Your task to perform on an android device: show emergency info Image 0: 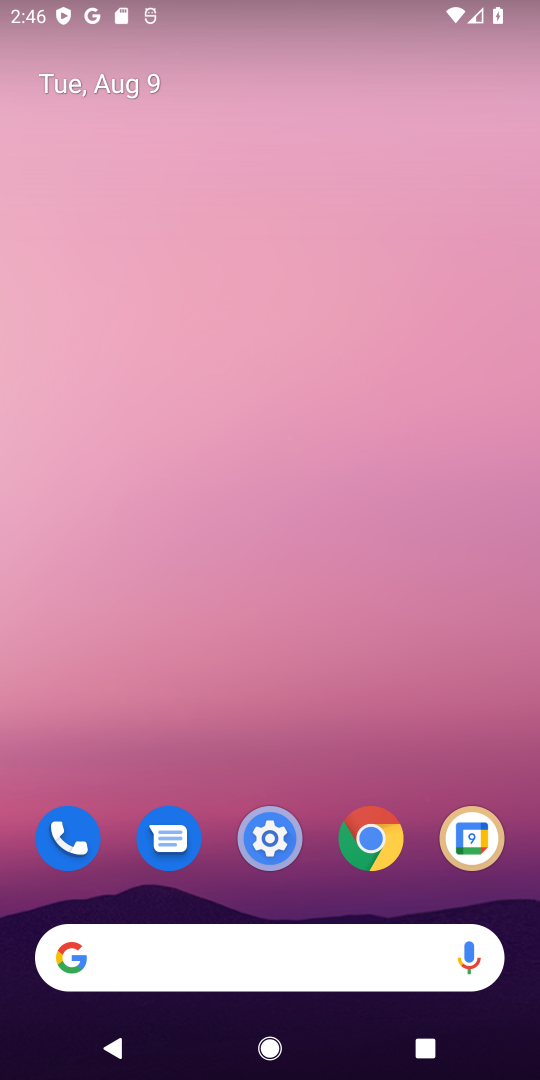
Step 0: drag from (331, 755) to (352, 1)
Your task to perform on an android device: show emergency info Image 1: 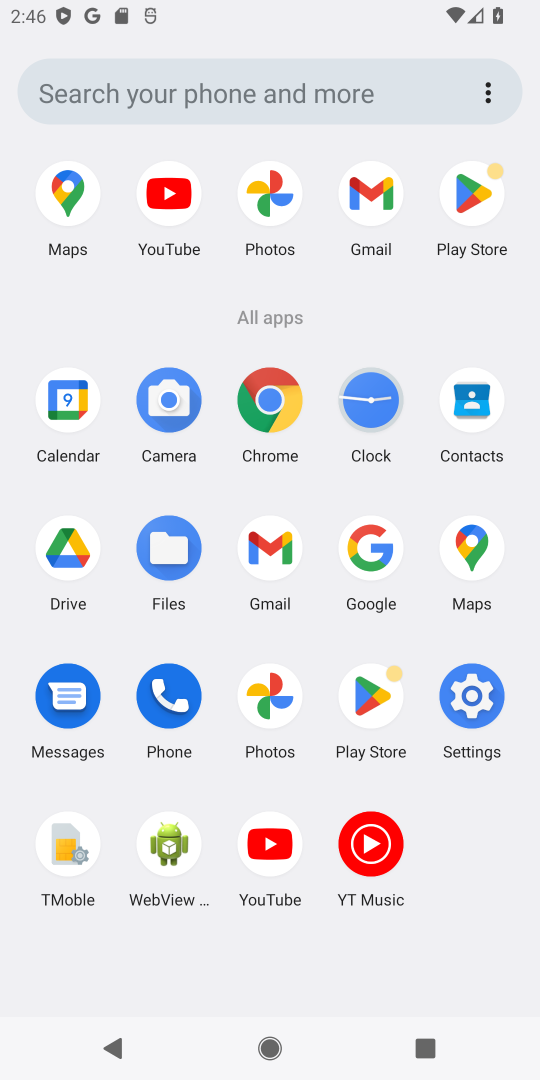
Step 1: click (471, 695)
Your task to perform on an android device: show emergency info Image 2: 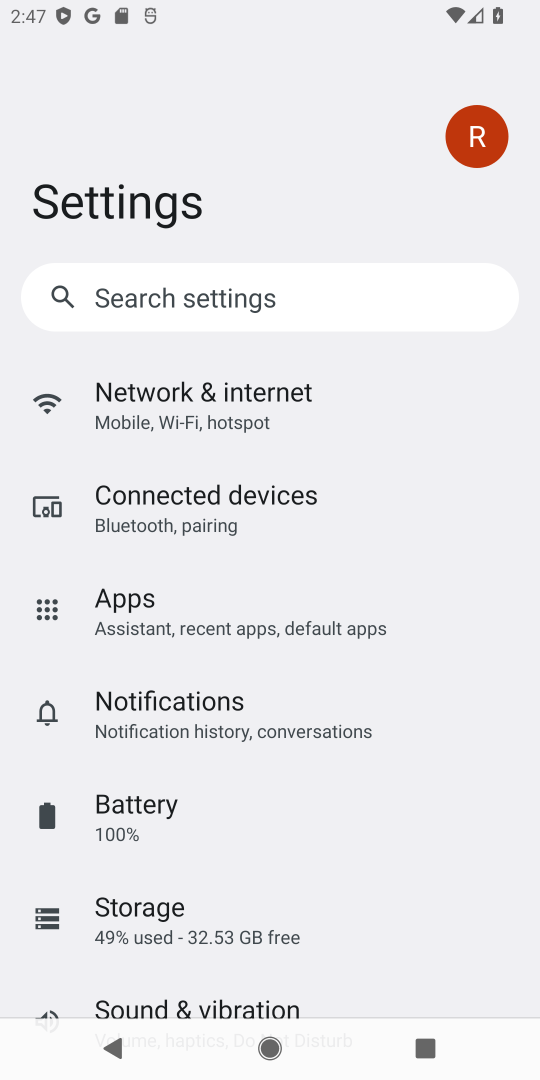
Step 2: drag from (380, 909) to (395, 326)
Your task to perform on an android device: show emergency info Image 3: 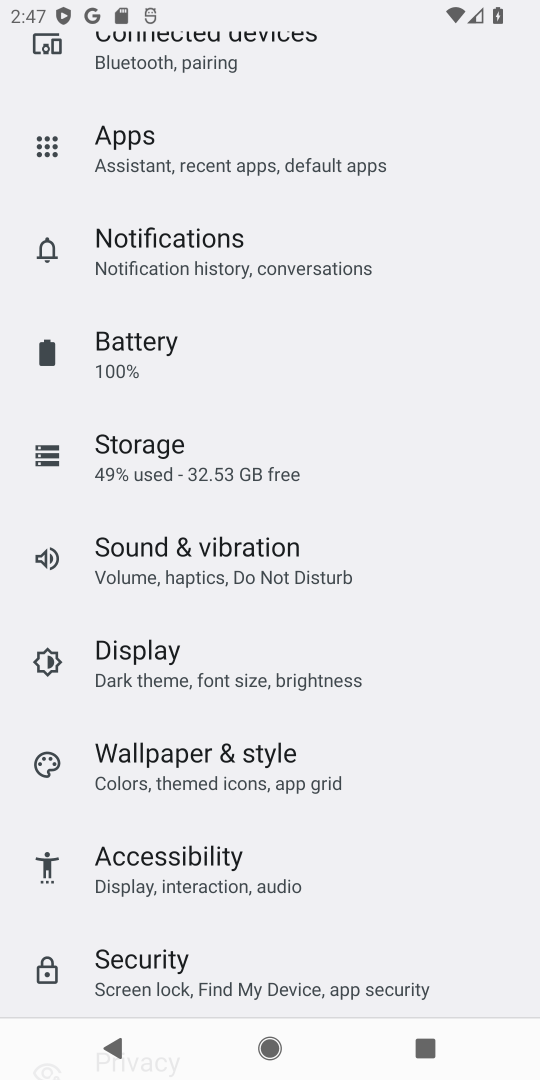
Step 3: drag from (334, 947) to (325, 432)
Your task to perform on an android device: show emergency info Image 4: 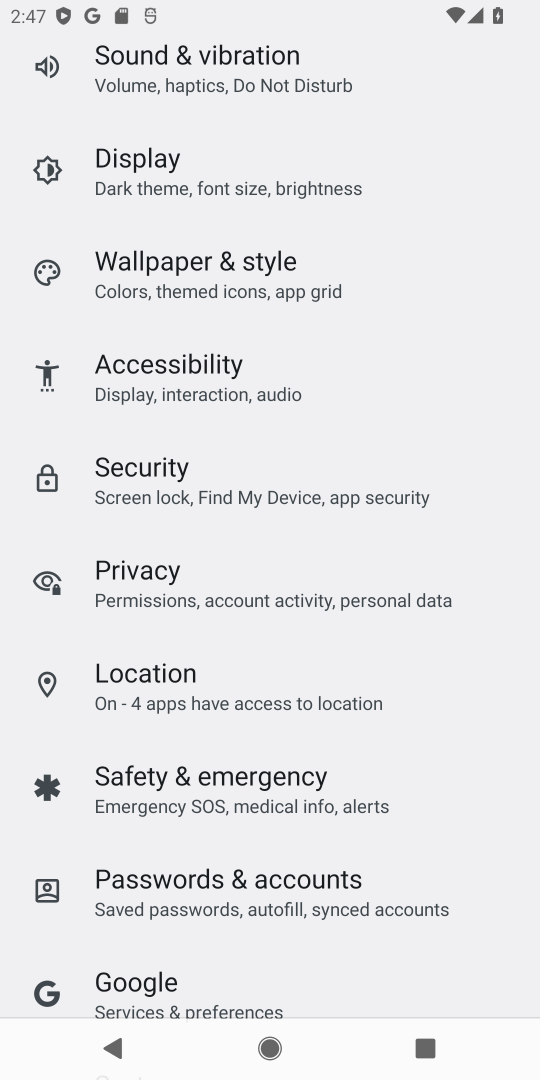
Step 4: click (246, 797)
Your task to perform on an android device: show emergency info Image 5: 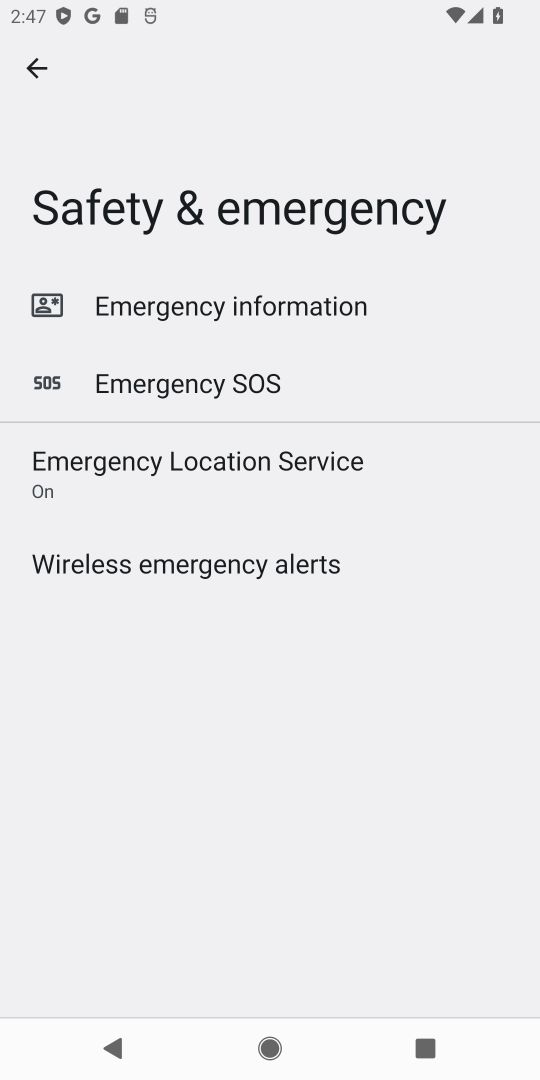
Step 5: click (266, 306)
Your task to perform on an android device: show emergency info Image 6: 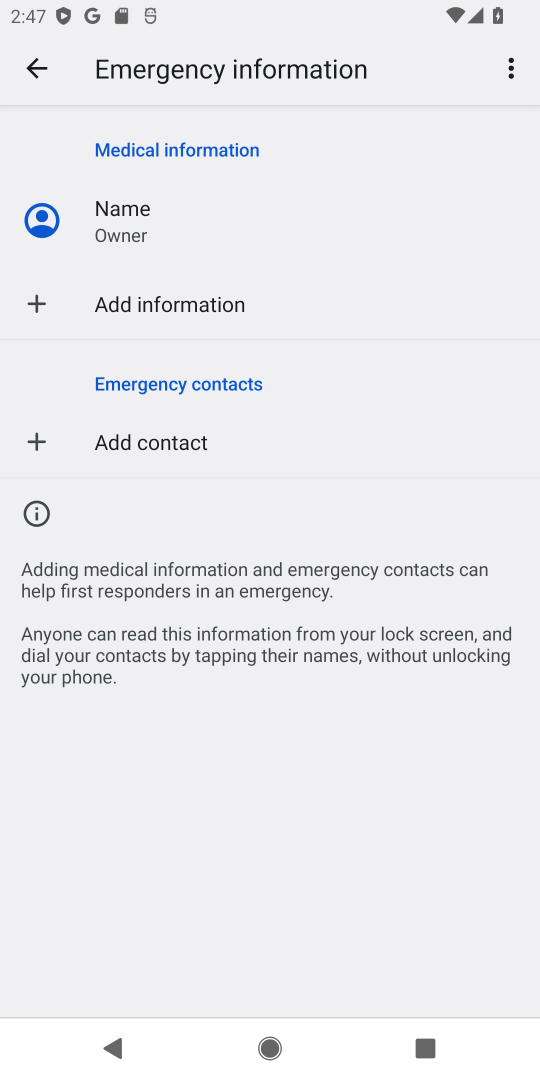
Step 6: task complete